Your task to perform on an android device: turn on bluetooth scan Image 0: 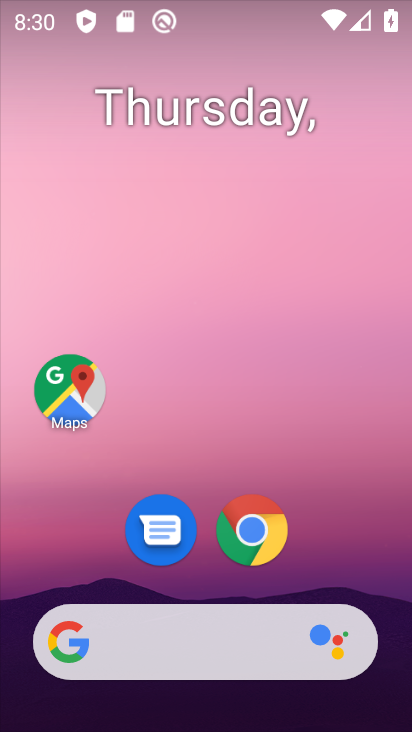
Step 0: drag from (297, 599) to (306, 350)
Your task to perform on an android device: turn on bluetooth scan Image 1: 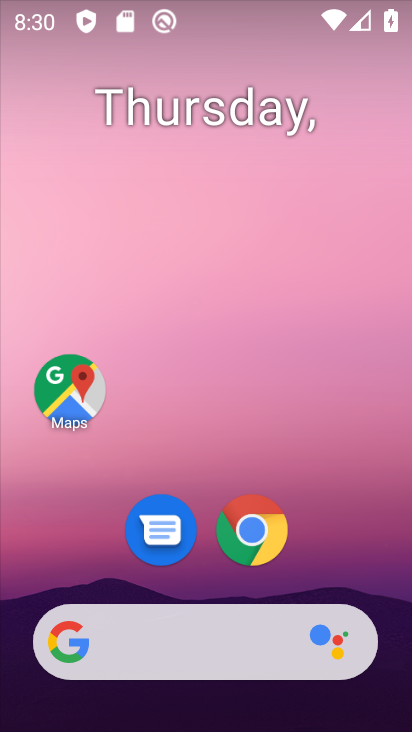
Step 1: drag from (260, 570) to (226, 103)
Your task to perform on an android device: turn on bluetooth scan Image 2: 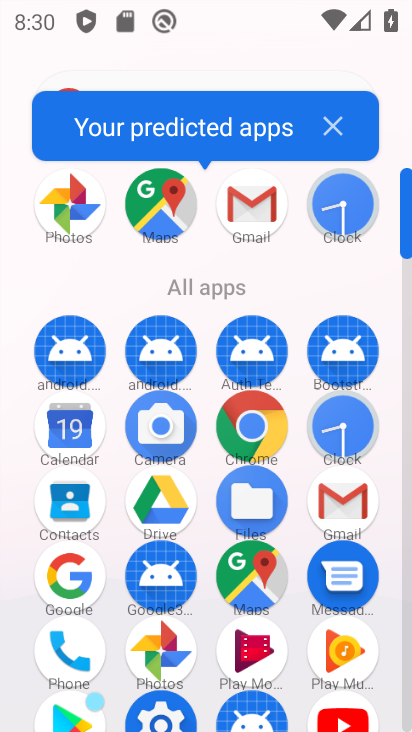
Step 2: drag from (287, 397) to (301, 21)
Your task to perform on an android device: turn on bluetooth scan Image 3: 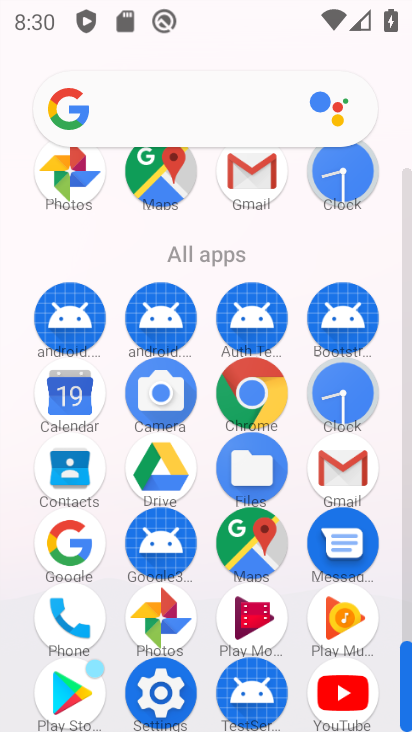
Step 3: click (167, 703)
Your task to perform on an android device: turn on bluetooth scan Image 4: 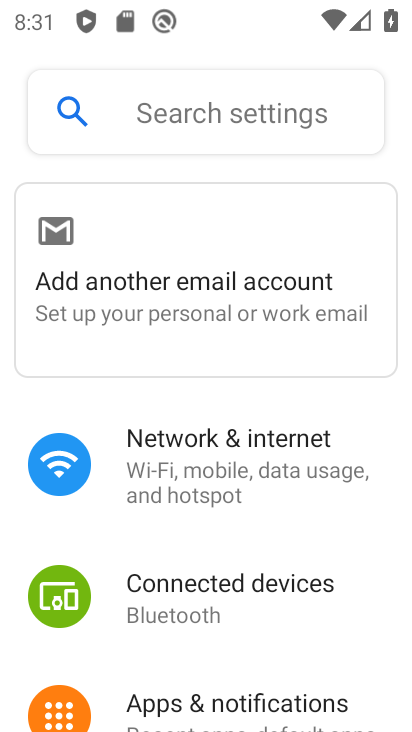
Step 4: click (267, 602)
Your task to perform on an android device: turn on bluetooth scan Image 5: 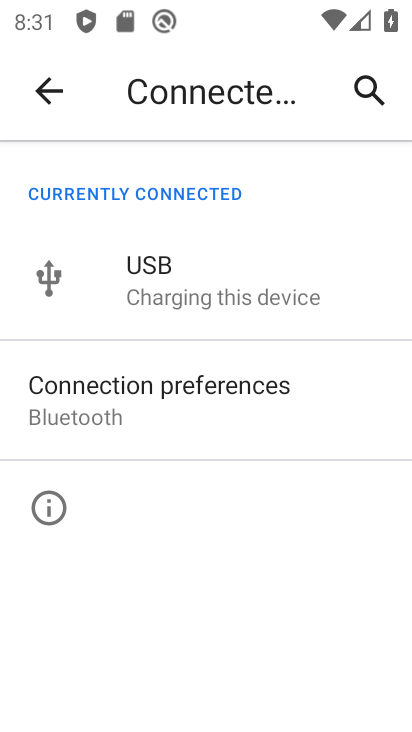
Step 5: click (215, 409)
Your task to perform on an android device: turn on bluetooth scan Image 6: 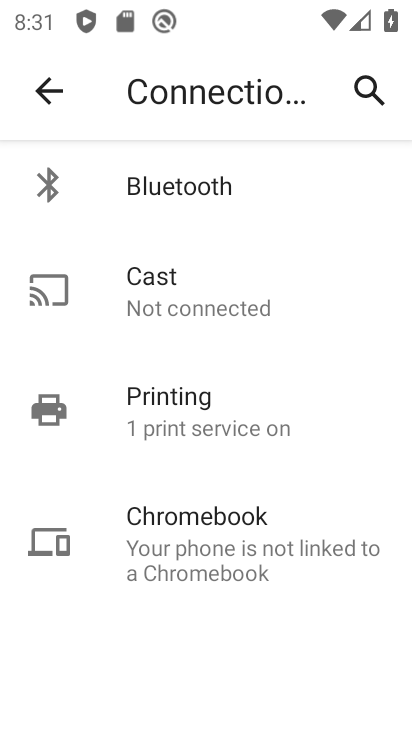
Step 6: click (213, 193)
Your task to perform on an android device: turn on bluetooth scan Image 7: 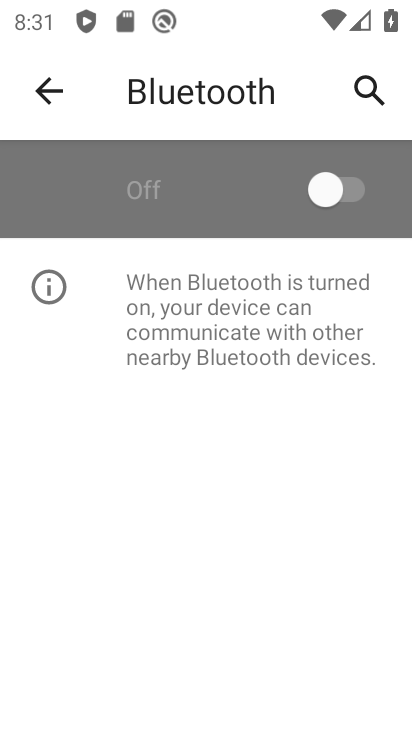
Step 7: click (213, 193)
Your task to perform on an android device: turn on bluetooth scan Image 8: 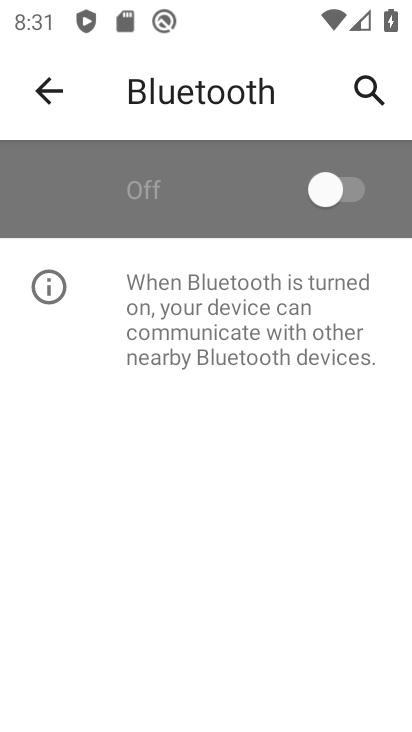
Step 8: click (213, 193)
Your task to perform on an android device: turn on bluetooth scan Image 9: 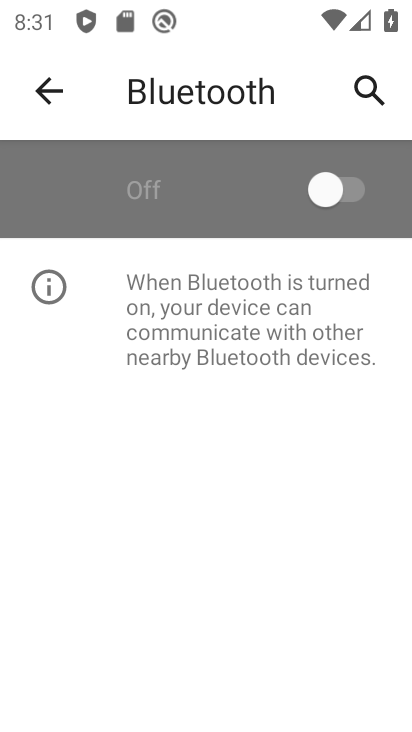
Step 9: click (213, 193)
Your task to perform on an android device: turn on bluetooth scan Image 10: 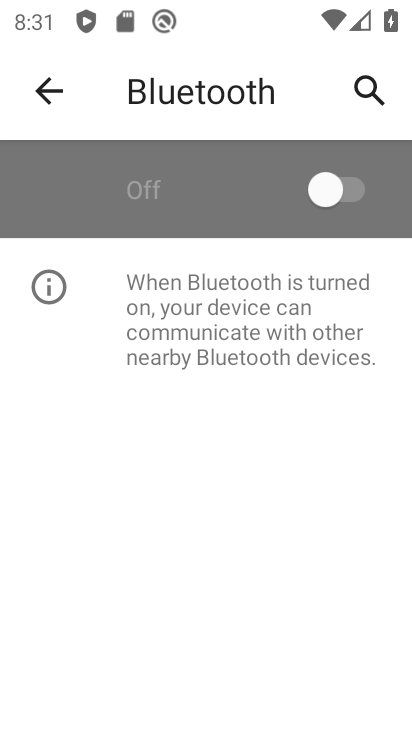
Step 10: click (213, 193)
Your task to perform on an android device: turn on bluetooth scan Image 11: 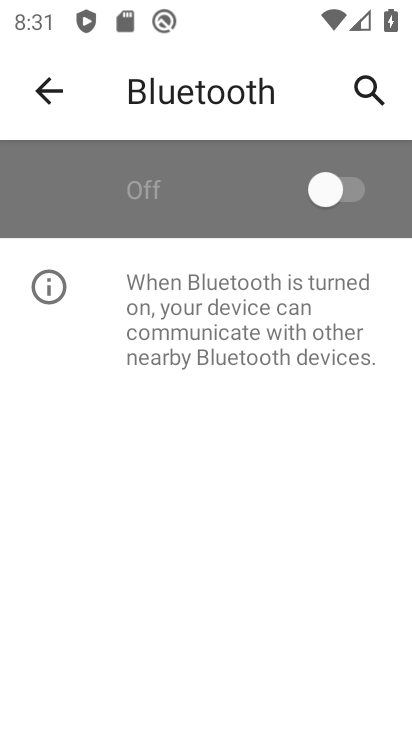
Step 11: task complete